Your task to perform on an android device: find snoozed emails in the gmail app Image 0: 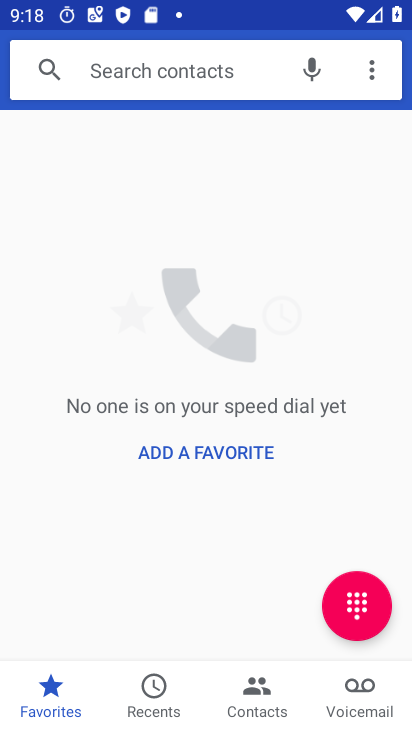
Step 0: press back button
Your task to perform on an android device: find snoozed emails in the gmail app Image 1: 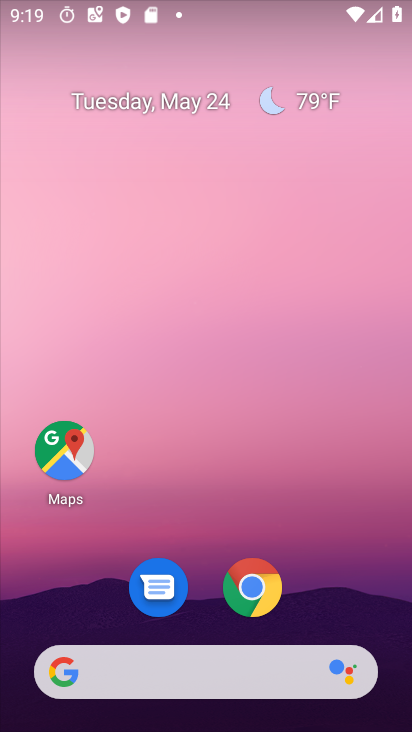
Step 1: drag from (332, 600) to (327, 0)
Your task to perform on an android device: find snoozed emails in the gmail app Image 2: 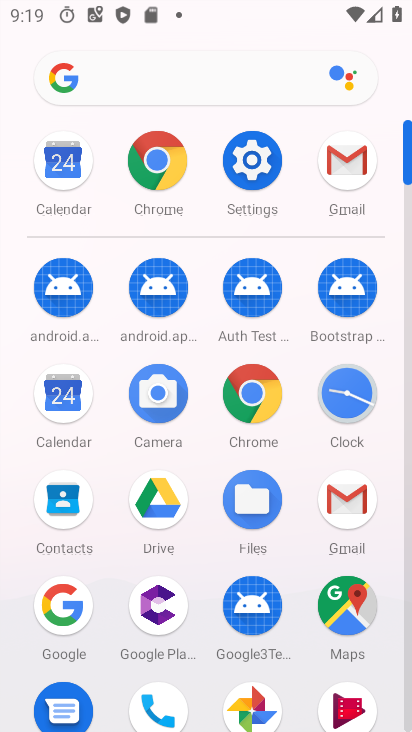
Step 2: click (350, 161)
Your task to perform on an android device: find snoozed emails in the gmail app Image 3: 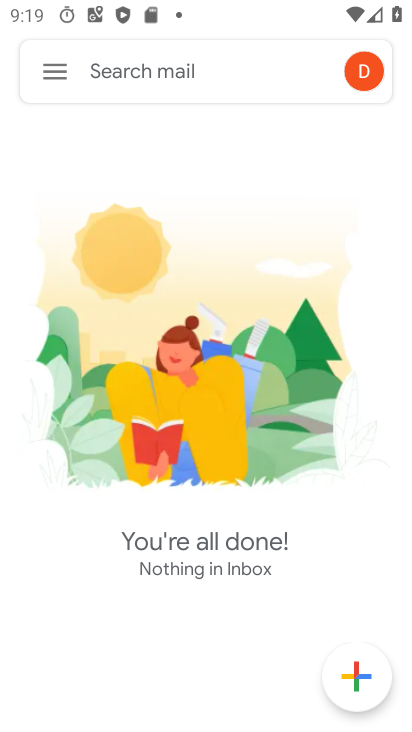
Step 3: click (57, 66)
Your task to perform on an android device: find snoozed emails in the gmail app Image 4: 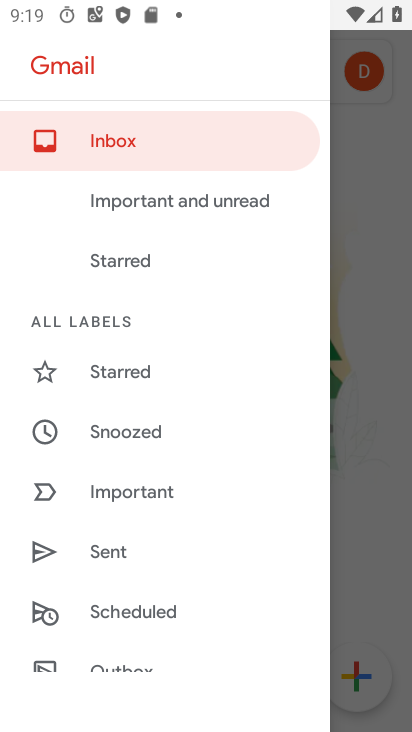
Step 4: click (135, 433)
Your task to perform on an android device: find snoozed emails in the gmail app Image 5: 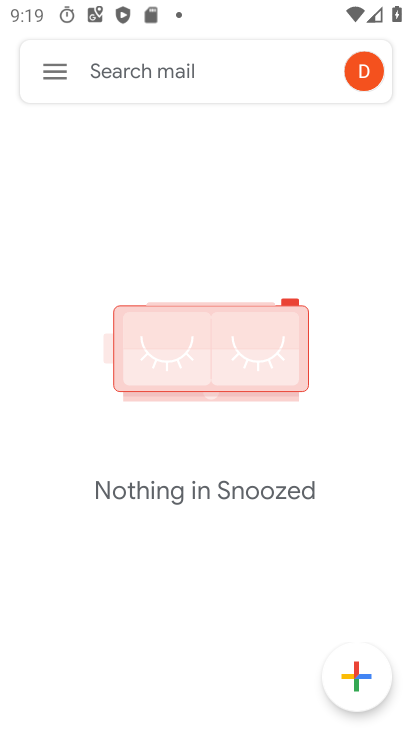
Step 5: task complete